Your task to perform on an android device: toggle javascript in the chrome app Image 0: 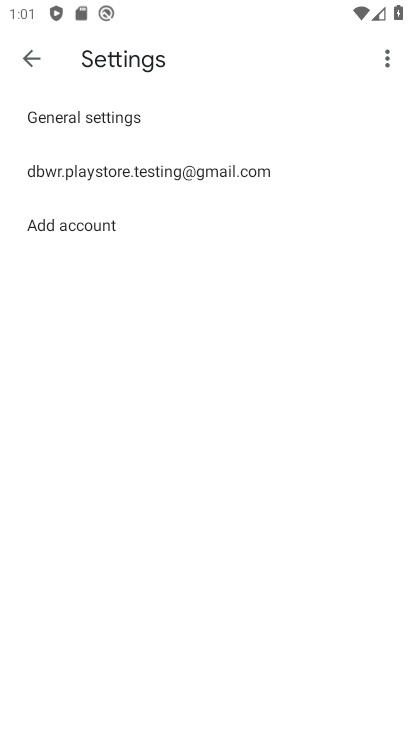
Step 0: press home button
Your task to perform on an android device: toggle javascript in the chrome app Image 1: 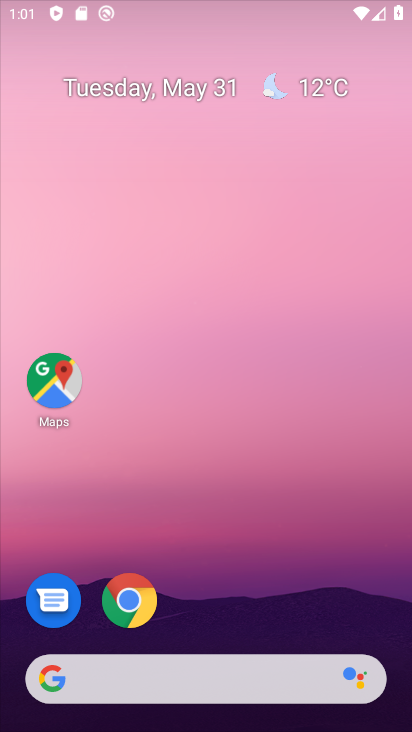
Step 1: drag from (261, 578) to (233, 0)
Your task to perform on an android device: toggle javascript in the chrome app Image 2: 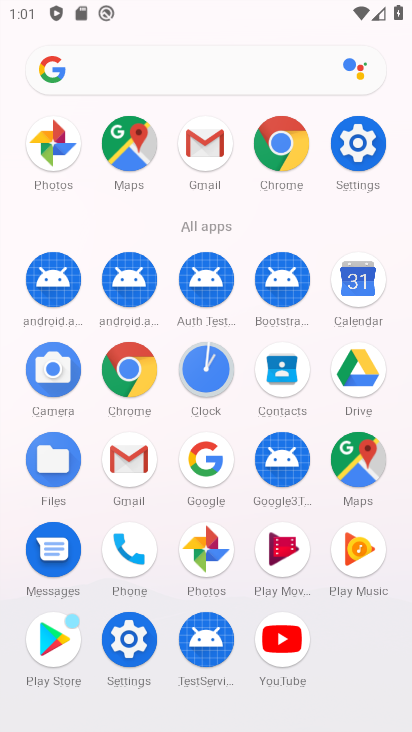
Step 2: click (142, 359)
Your task to perform on an android device: toggle javascript in the chrome app Image 3: 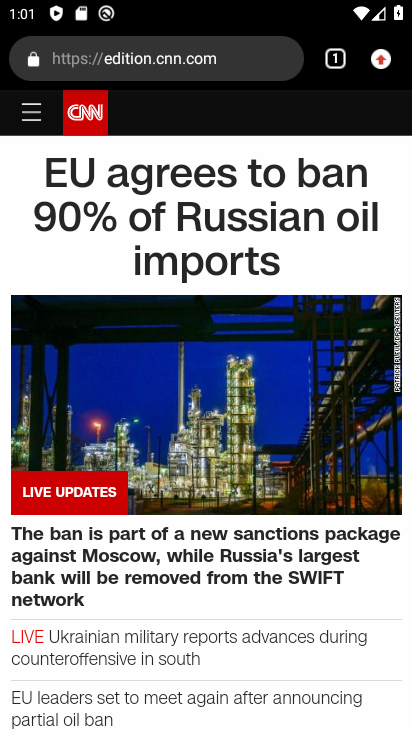
Step 3: click (381, 62)
Your task to perform on an android device: toggle javascript in the chrome app Image 4: 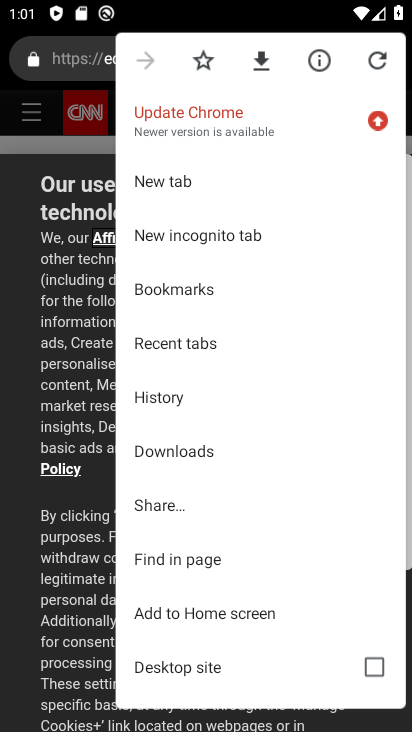
Step 4: drag from (250, 602) to (290, 173)
Your task to perform on an android device: toggle javascript in the chrome app Image 5: 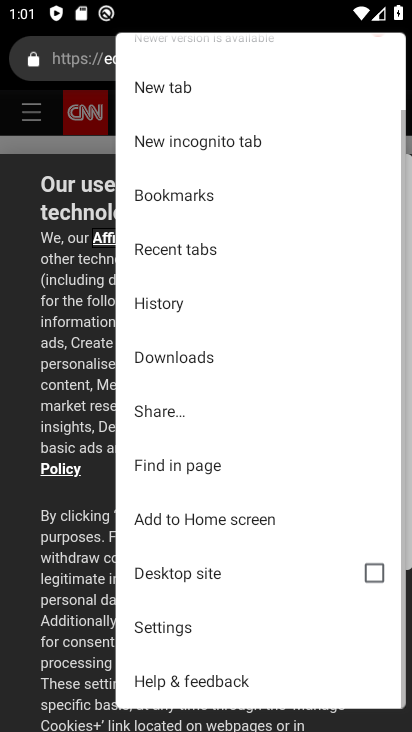
Step 5: click (212, 648)
Your task to perform on an android device: toggle javascript in the chrome app Image 6: 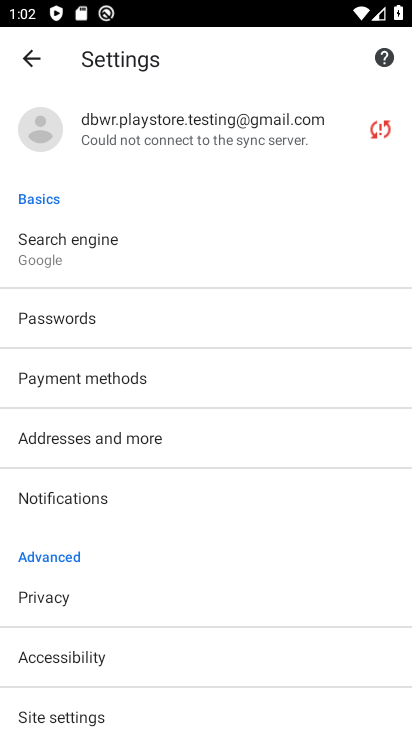
Step 6: drag from (192, 615) to (243, 168)
Your task to perform on an android device: toggle javascript in the chrome app Image 7: 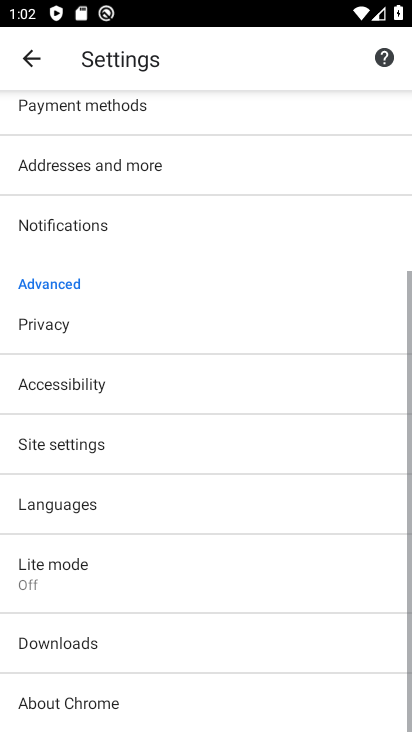
Step 7: click (133, 441)
Your task to perform on an android device: toggle javascript in the chrome app Image 8: 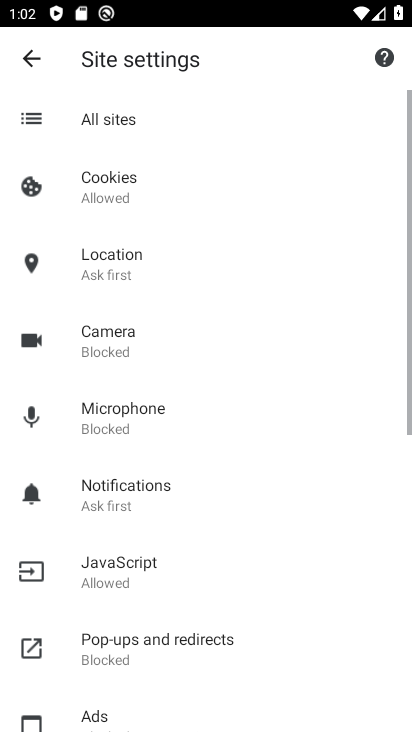
Step 8: click (153, 568)
Your task to perform on an android device: toggle javascript in the chrome app Image 9: 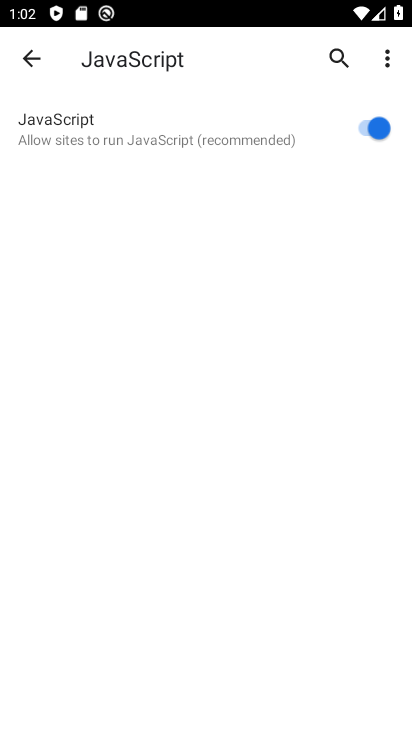
Step 9: click (388, 129)
Your task to perform on an android device: toggle javascript in the chrome app Image 10: 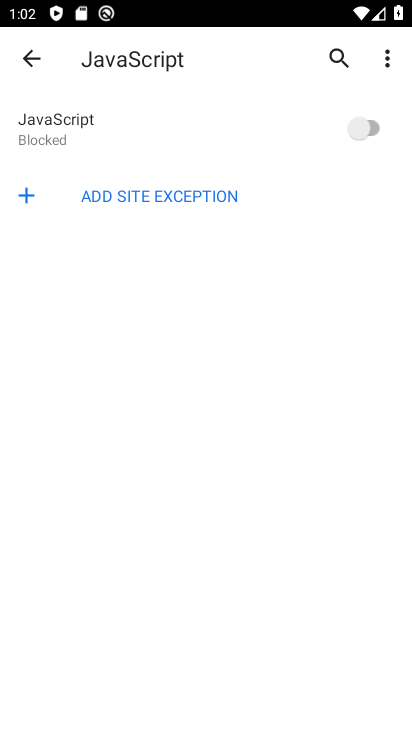
Step 10: task complete